Your task to perform on an android device: Show me popular videos on Youtube Image 0: 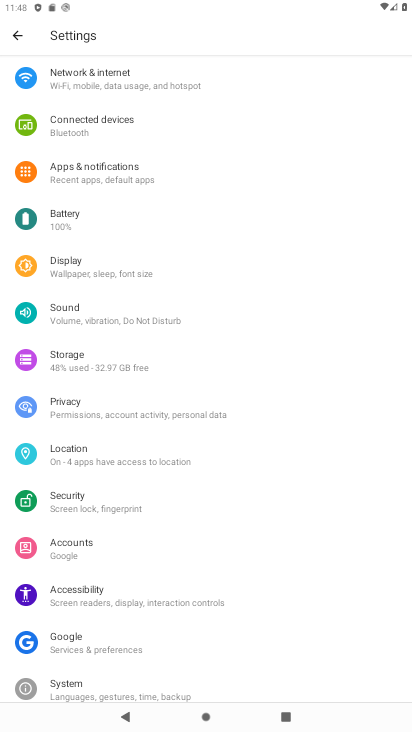
Step 0: press home button
Your task to perform on an android device: Show me popular videos on Youtube Image 1: 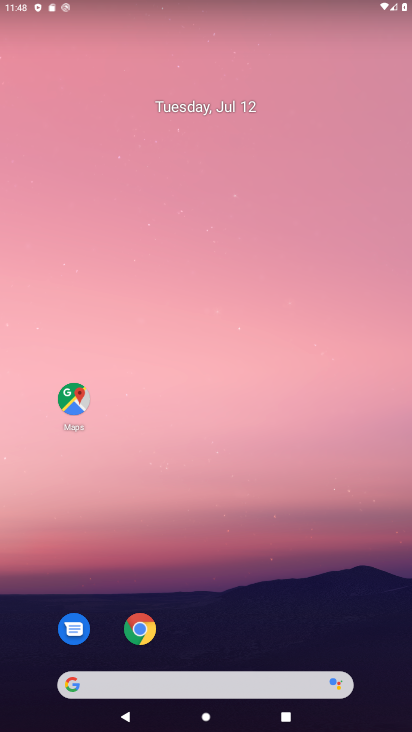
Step 1: drag from (204, 584) to (183, 93)
Your task to perform on an android device: Show me popular videos on Youtube Image 2: 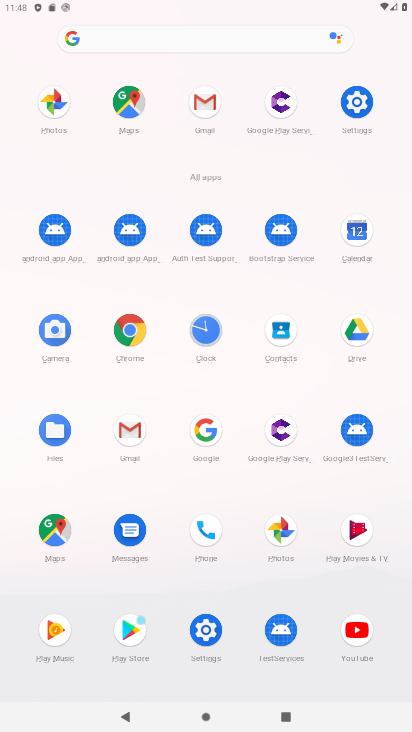
Step 2: click (342, 636)
Your task to perform on an android device: Show me popular videos on Youtube Image 3: 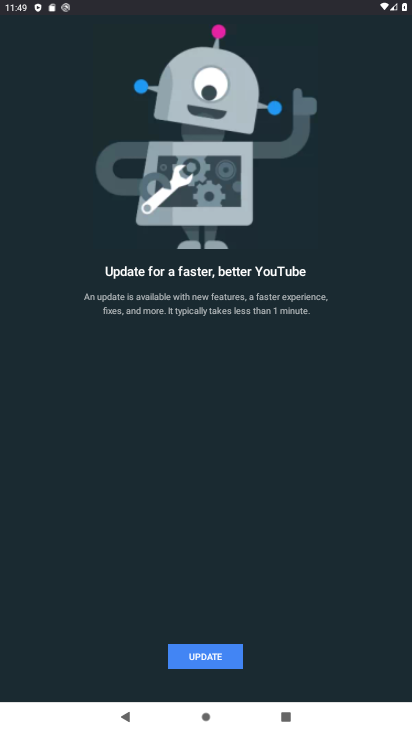
Step 3: click (203, 648)
Your task to perform on an android device: Show me popular videos on Youtube Image 4: 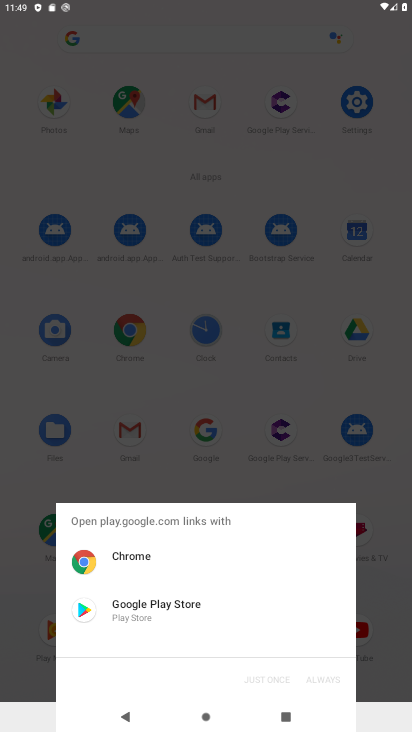
Step 4: click (186, 615)
Your task to perform on an android device: Show me popular videos on Youtube Image 5: 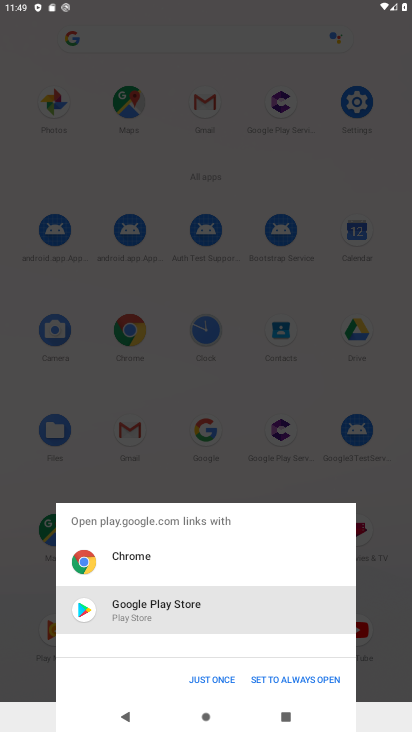
Step 5: click (197, 679)
Your task to perform on an android device: Show me popular videos on Youtube Image 6: 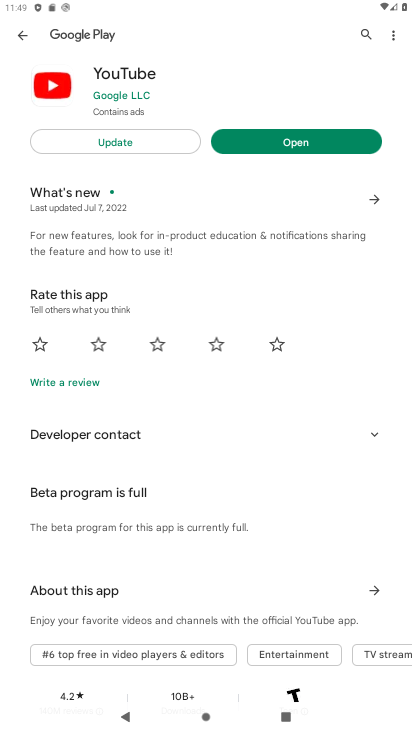
Step 6: click (152, 134)
Your task to perform on an android device: Show me popular videos on Youtube Image 7: 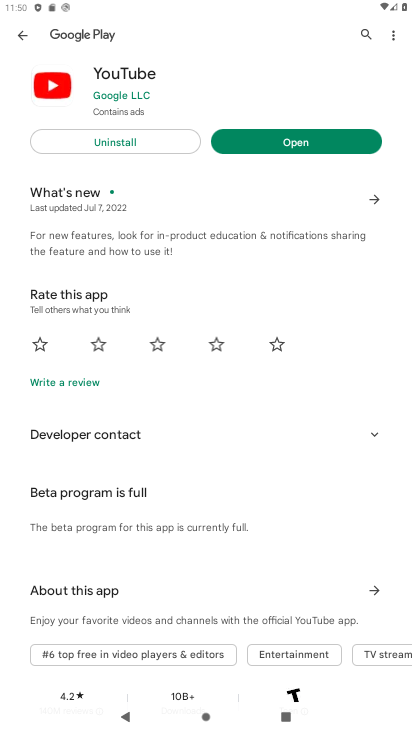
Step 7: click (287, 136)
Your task to perform on an android device: Show me popular videos on Youtube Image 8: 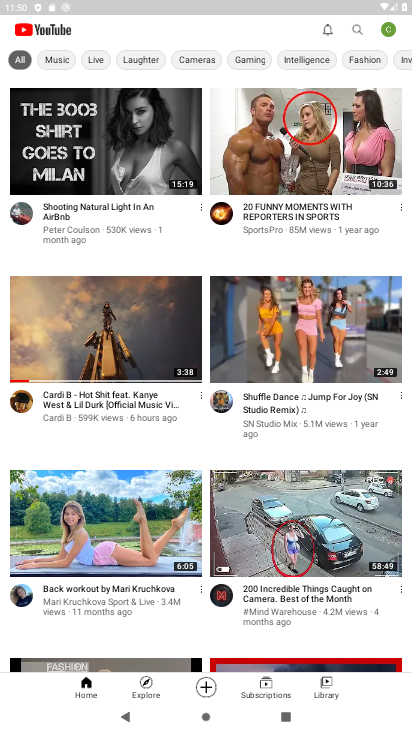
Step 8: click (327, 27)
Your task to perform on an android device: Show me popular videos on Youtube Image 9: 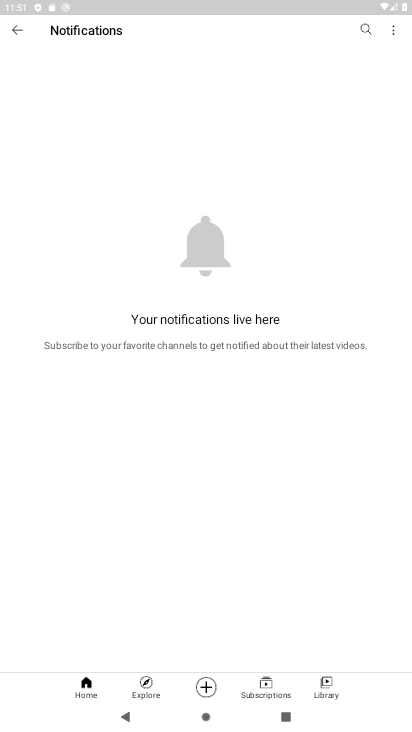
Step 9: click (69, 683)
Your task to perform on an android device: Show me popular videos on Youtube Image 10: 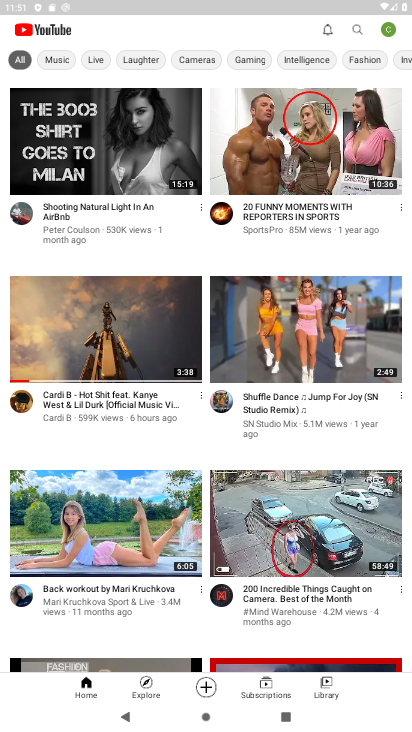
Step 10: click (353, 32)
Your task to perform on an android device: Show me popular videos on Youtube Image 11: 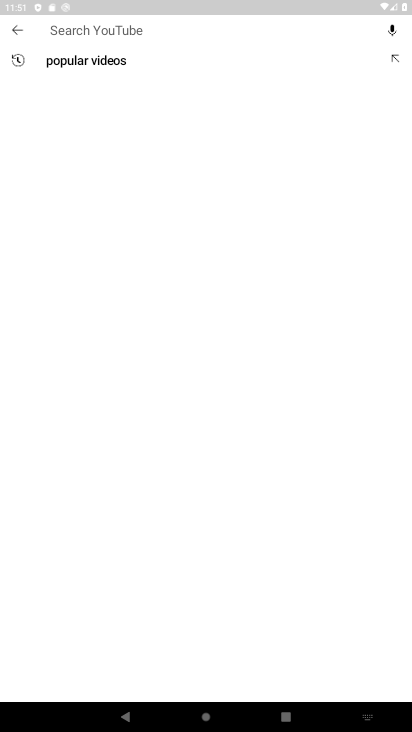
Step 11: click (188, 26)
Your task to perform on an android device: Show me popular videos on Youtube Image 12: 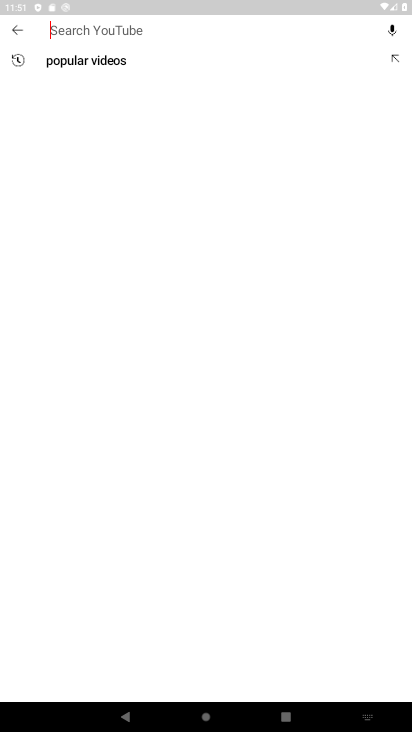
Step 12: click (102, 68)
Your task to perform on an android device: Show me popular videos on Youtube Image 13: 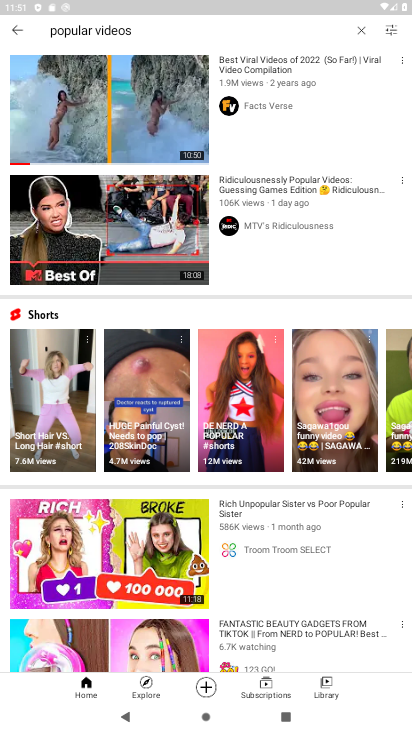
Step 13: task complete